Your task to perform on an android device: toggle notifications settings in the gmail app Image 0: 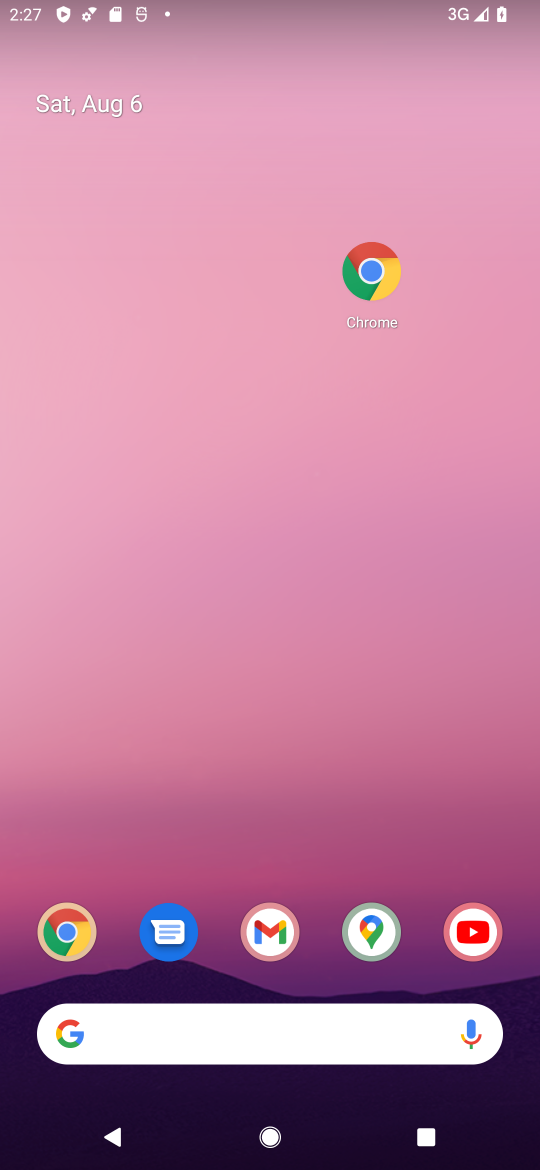
Step 0: click (266, 923)
Your task to perform on an android device: toggle notifications settings in the gmail app Image 1: 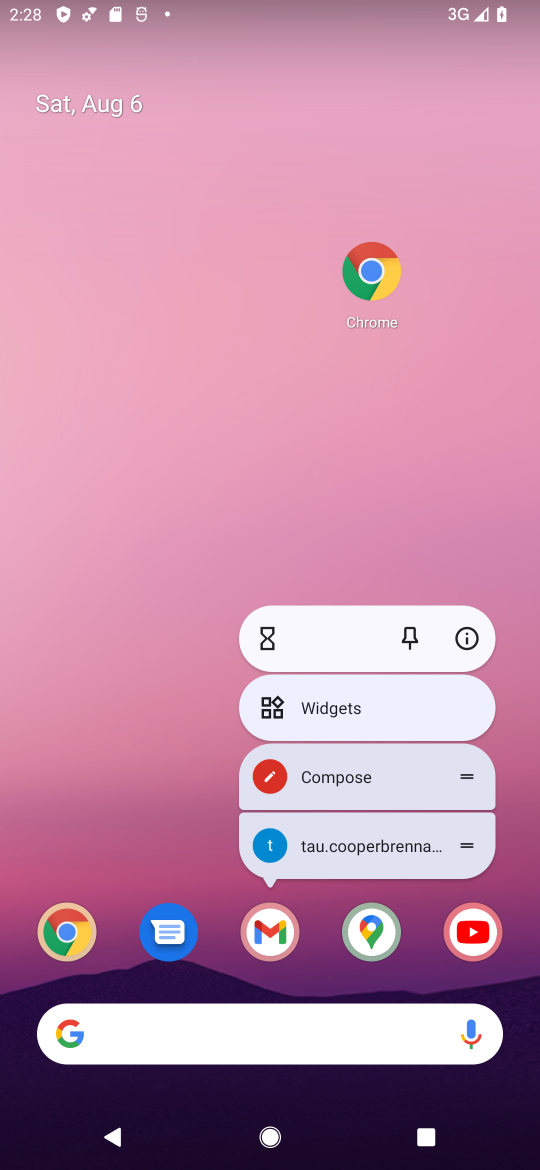
Step 1: click (468, 634)
Your task to perform on an android device: toggle notifications settings in the gmail app Image 2: 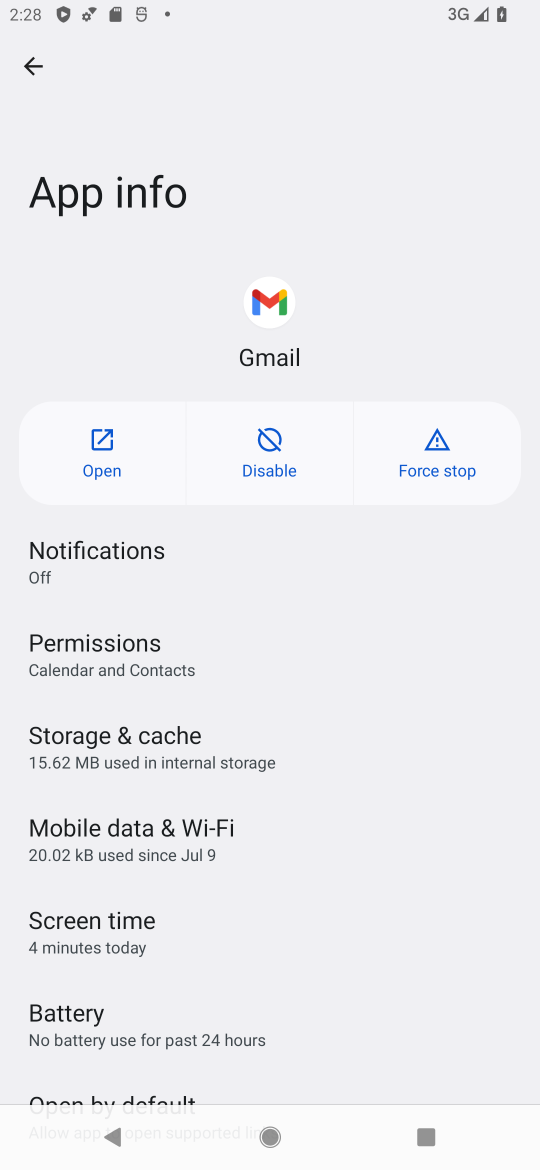
Step 2: click (141, 545)
Your task to perform on an android device: toggle notifications settings in the gmail app Image 3: 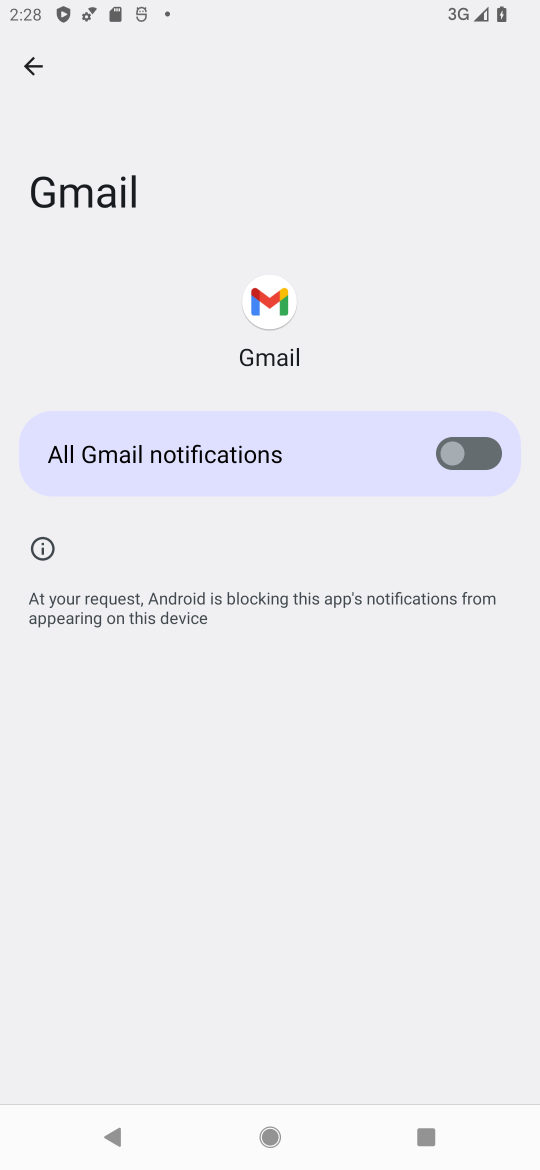
Step 3: click (401, 449)
Your task to perform on an android device: toggle notifications settings in the gmail app Image 4: 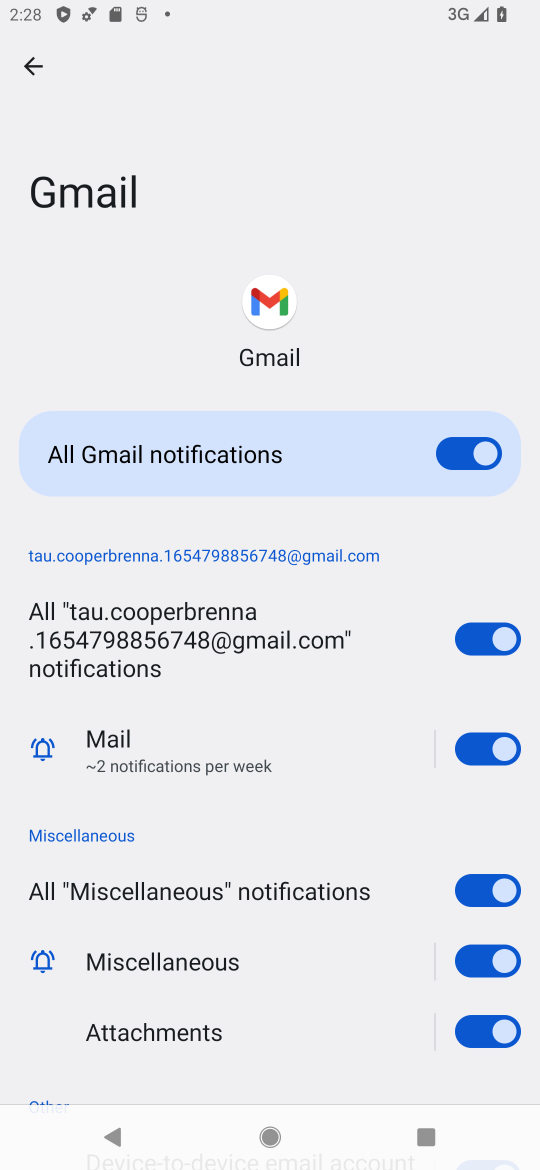
Step 4: task complete